Your task to perform on an android device: find snoozed emails in the gmail app Image 0: 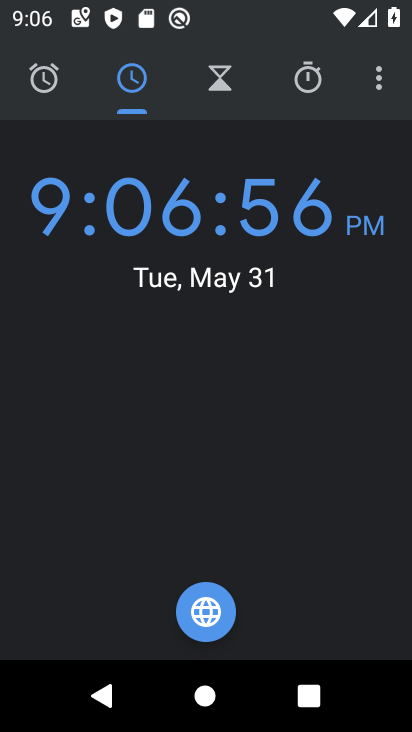
Step 0: press home button
Your task to perform on an android device: find snoozed emails in the gmail app Image 1: 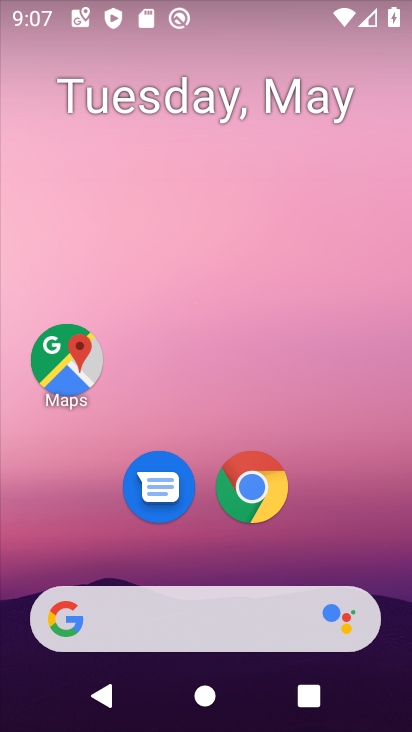
Step 1: drag from (369, 533) to (366, 253)
Your task to perform on an android device: find snoozed emails in the gmail app Image 2: 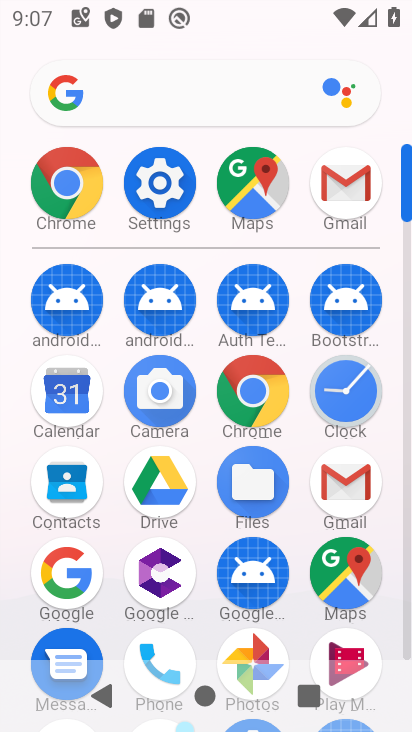
Step 2: click (355, 479)
Your task to perform on an android device: find snoozed emails in the gmail app Image 3: 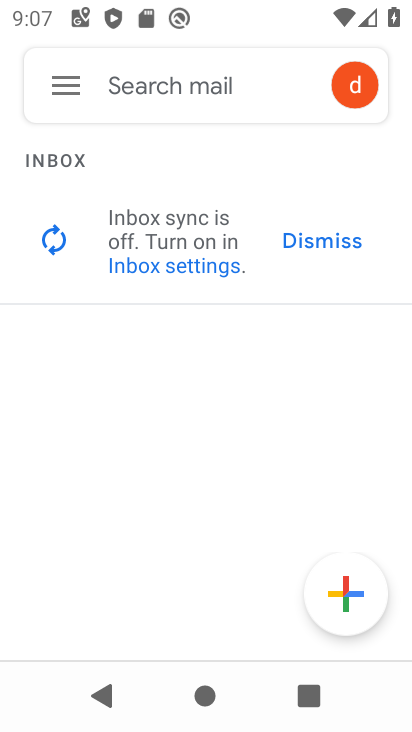
Step 3: click (68, 96)
Your task to perform on an android device: find snoozed emails in the gmail app Image 4: 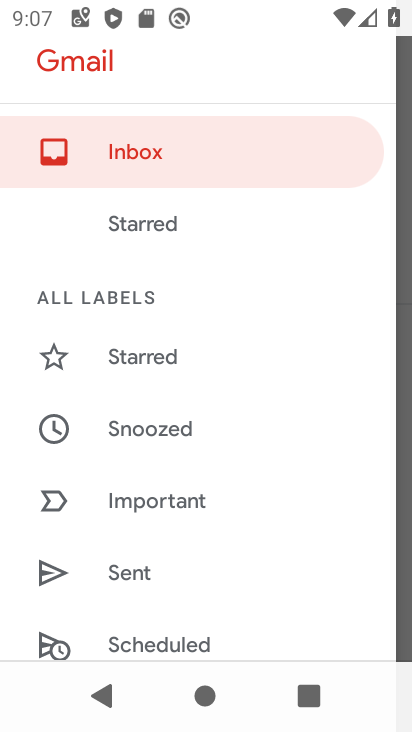
Step 4: click (184, 434)
Your task to perform on an android device: find snoozed emails in the gmail app Image 5: 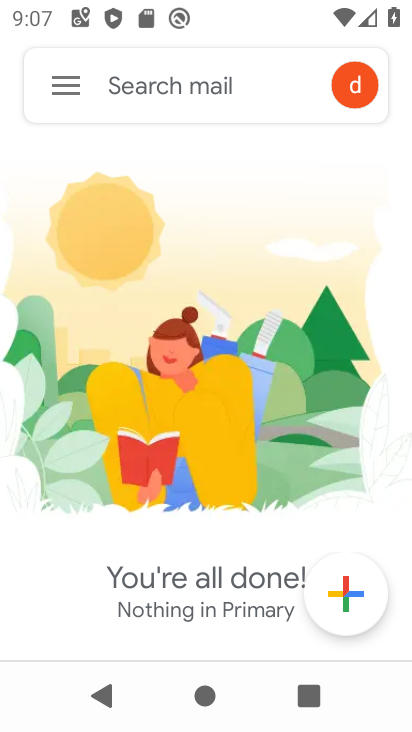
Step 5: task complete